Your task to perform on an android device: What's on my calendar today? Image 0: 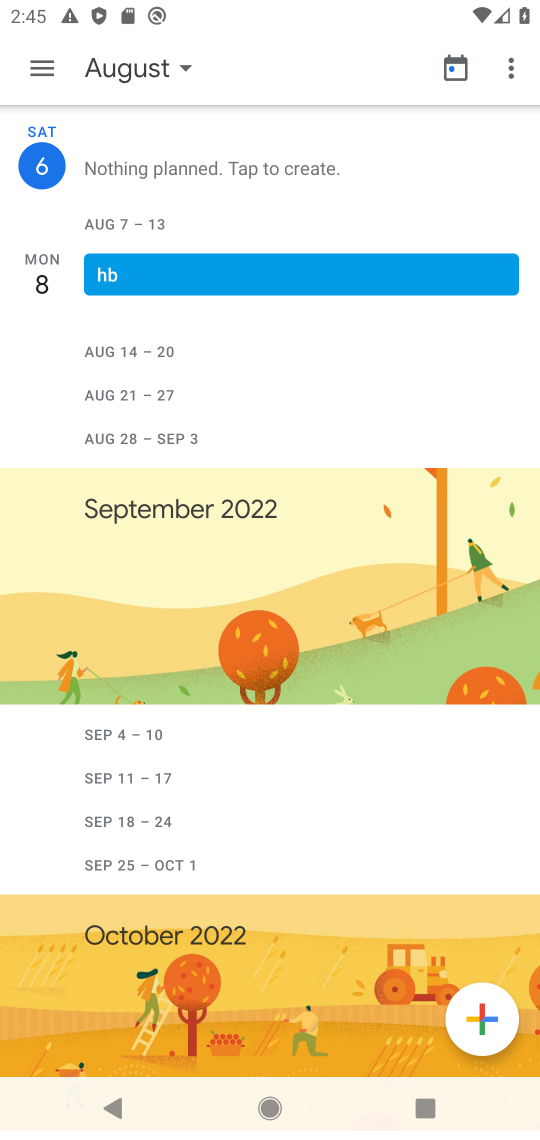
Step 0: press home button
Your task to perform on an android device: What's on my calendar today? Image 1: 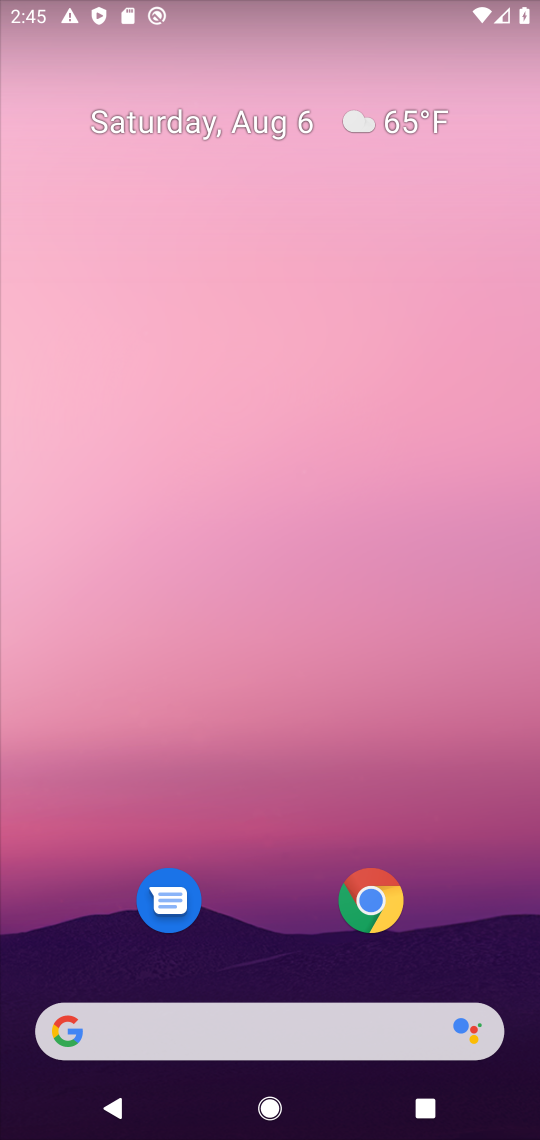
Step 1: drag from (263, 870) to (313, 201)
Your task to perform on an android device: What's on my calendar today? Image 2: 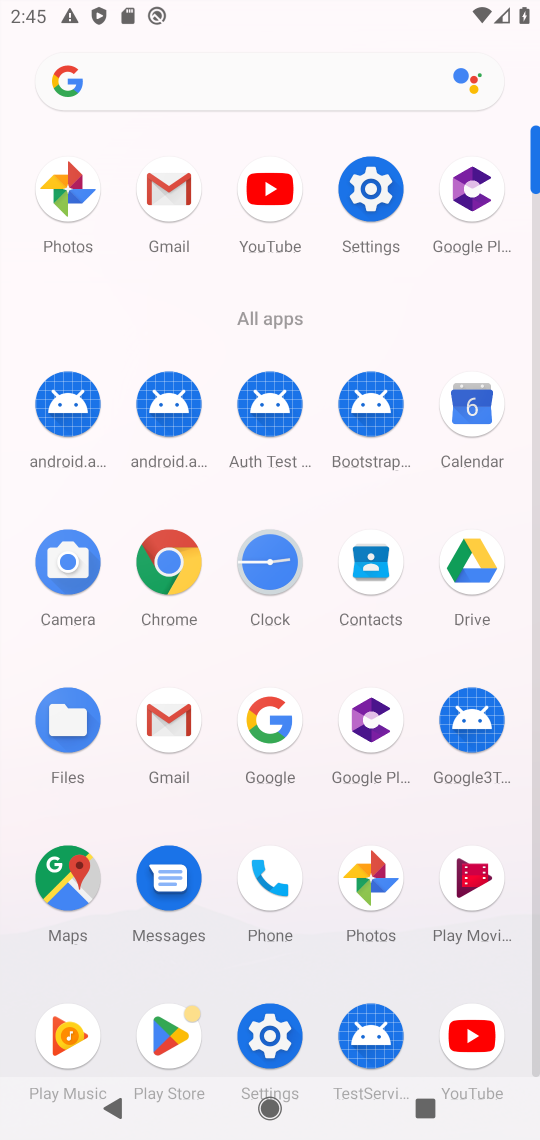
Step 2: click (451, 394)
Your task to perform on an android device: What's on my calendar today? Image 3: 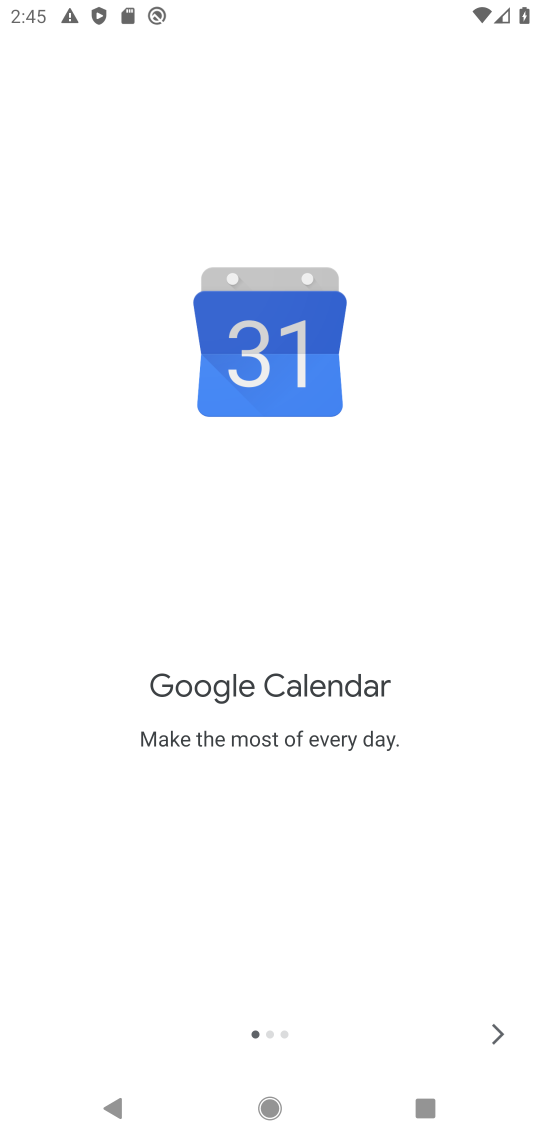
Step 3: click (501, 1025)
Your task to perform on an android device: What's on my calendar today? Image 4: 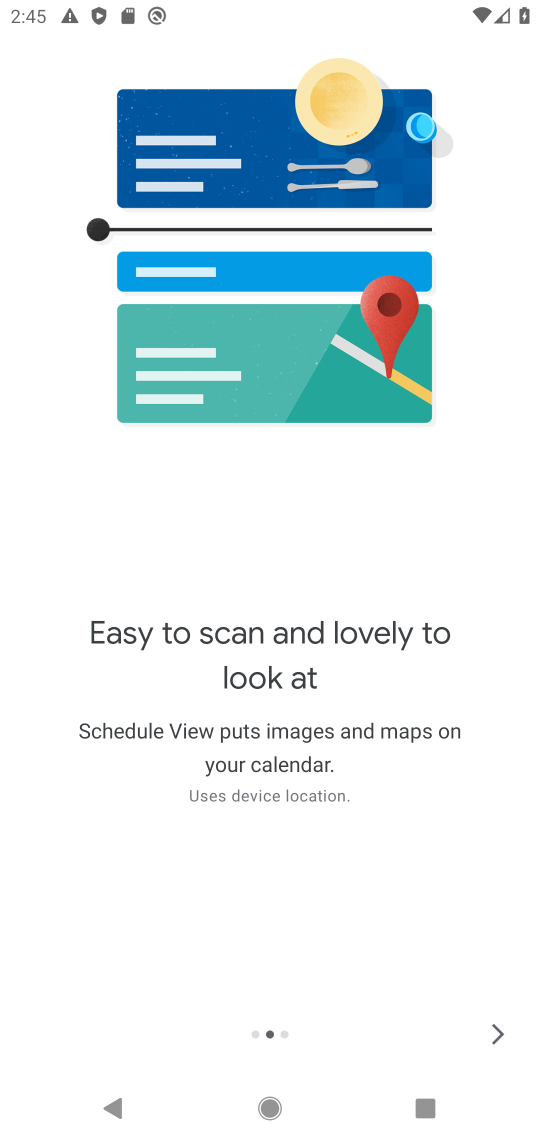
Step 4: click (495, 1026)
Your task to perform on an android device: What's on my calendar today? Image 5: 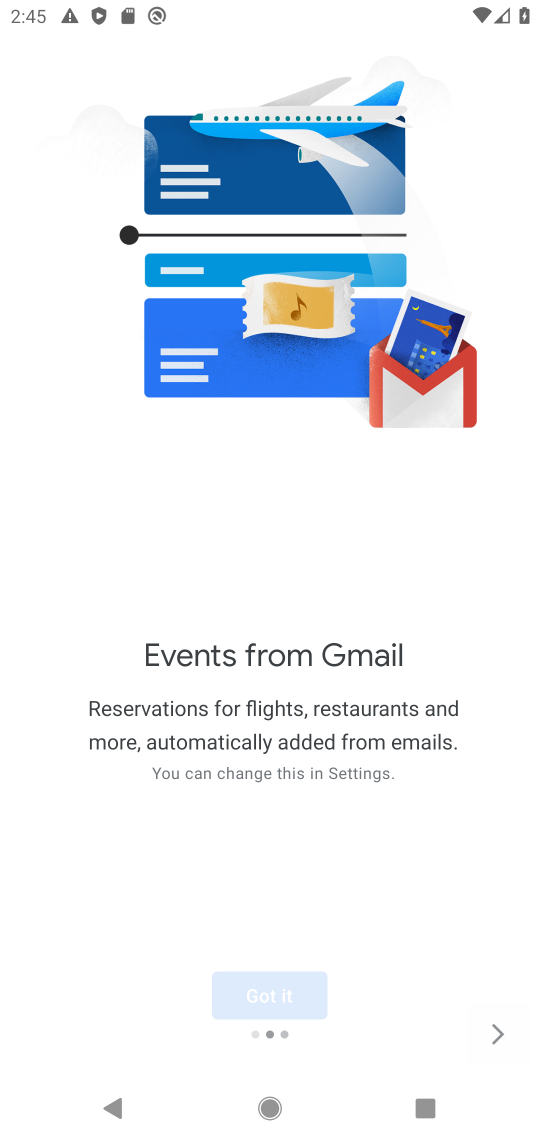
Step 5: click (494, 1025)
Your task to perform on an android device: What's on my calendar today? Image 6: 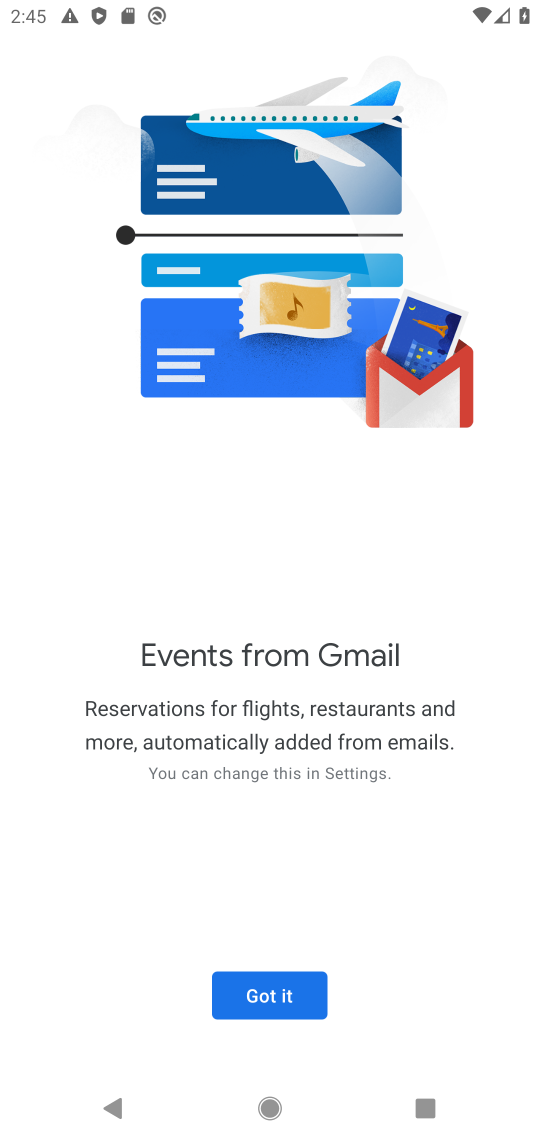
Step 6: click (268, 994)
Your task to perform on an android device: What's on my calendar today? Image 7: 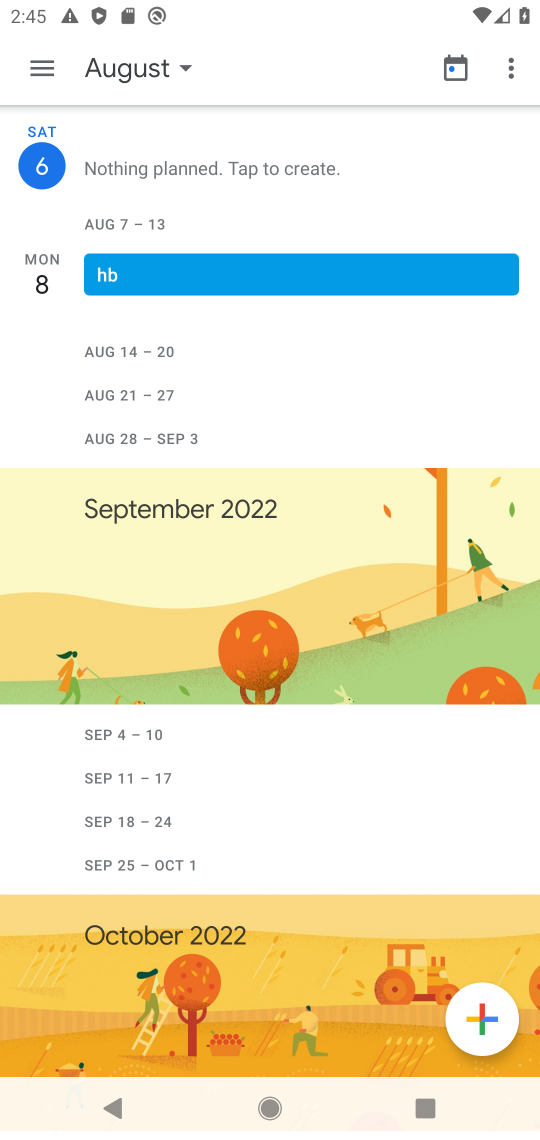
Step 7: click (45, 75)
Your task to perform on an android device: What's on my calendar today? Image 8: 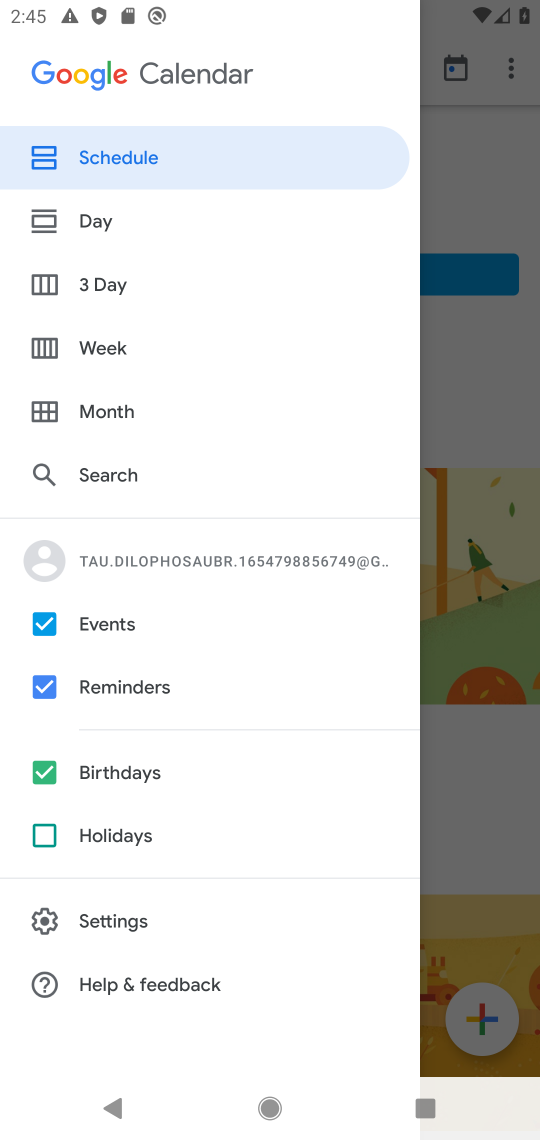
Step 8: click (95, 218)
Your task to perform on an android device: What's on my calendar today? Image 9: 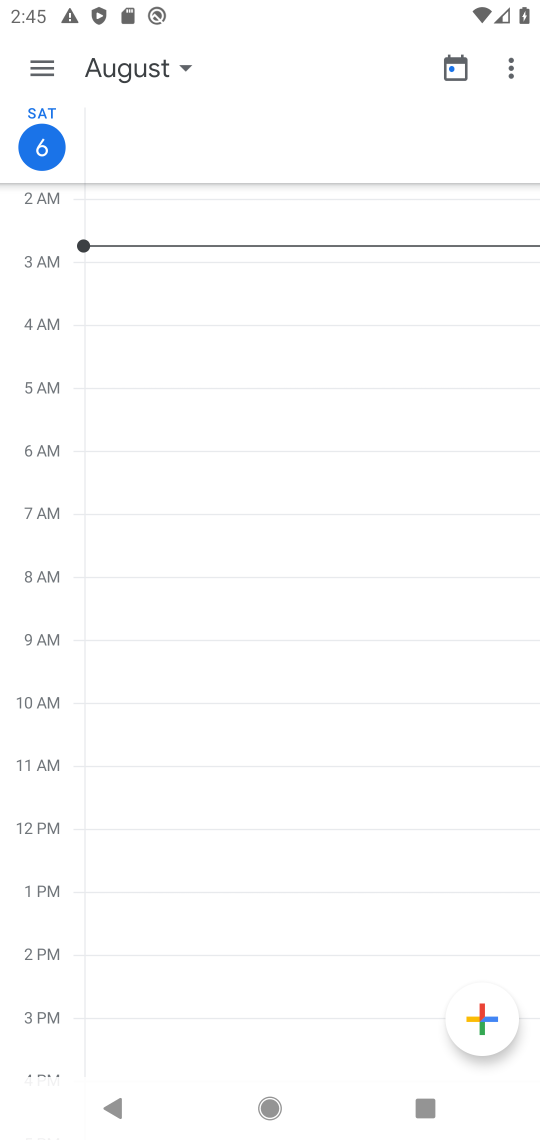
Step 9: task complete